Your task to perform on an android device: choose inbox layout in the gmail app Image 0: 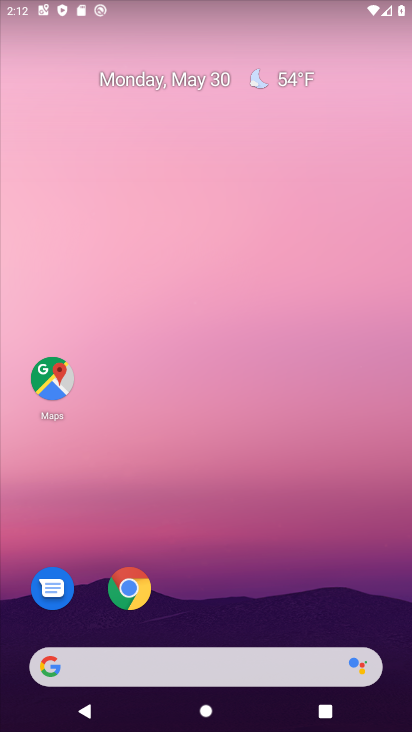
Step 0: drag from (198, 595) to (166, 110)
Your task to perform on an android device: choose inbox layout in the gmail app Image 1: 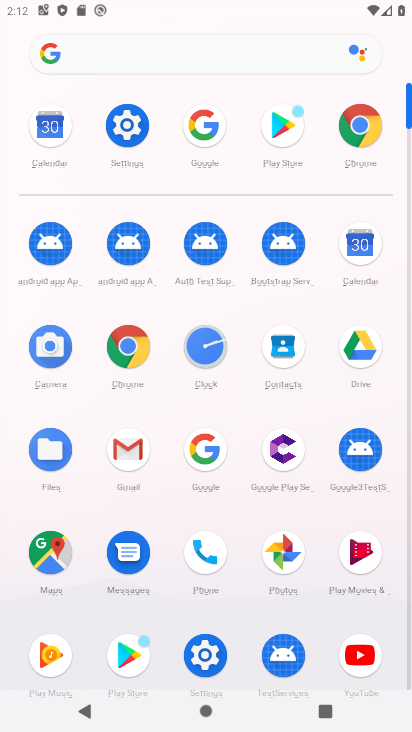
Step 1: click (133, 453)
Your task to perform on an android device: choose inbox layout in the gmail app Image 2: 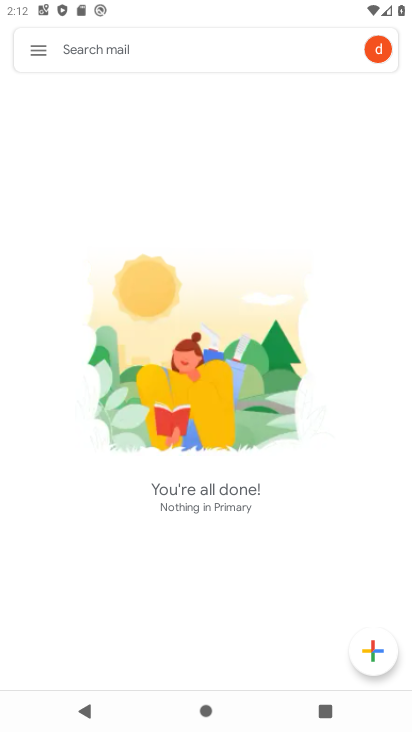
Step 2: click (38, 52)
Your task to perform on an android device: choose inbox layout in the gmail app Image 3: 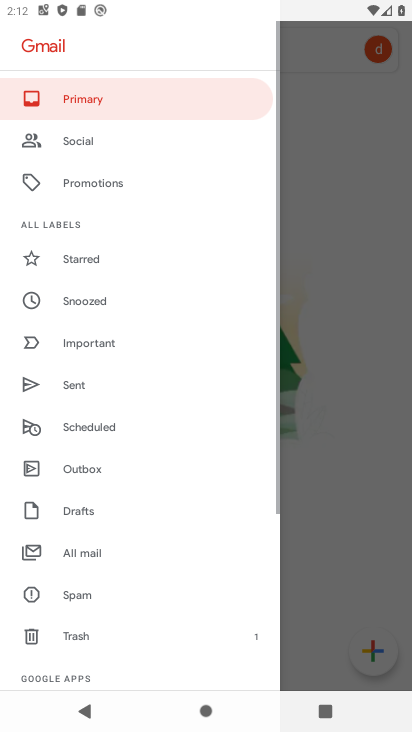
Step 3: drag from (137, 659) to (162, 254)
Your task to perform on an android device: choose inbox layout in the gmail app Image 4: 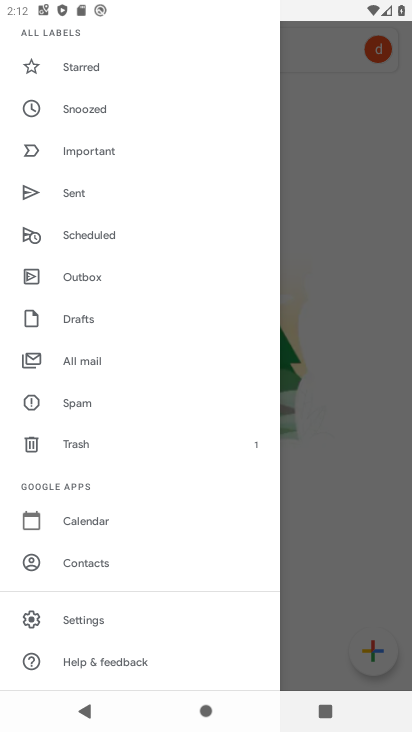
Step 4: click (91, 627)
Your task to perform on an android device: choose inbox layout in the gmail app Image 5: 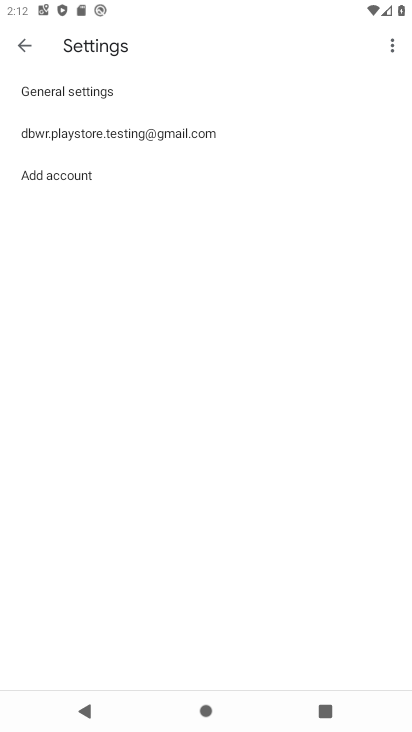
Step 5: click (123, 132)
Your task to perform on an android device: choose inbox layout in the gmail app Image 6: 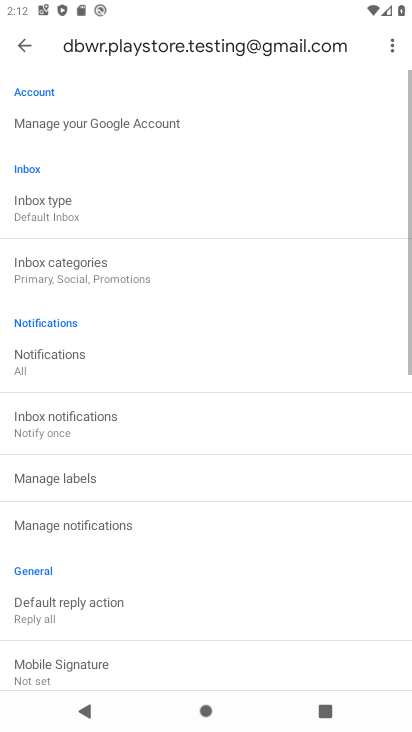
Step 6: click (76, 219)
Your task to perform on an android device: choose inbox layout in the gmail app Image 7: 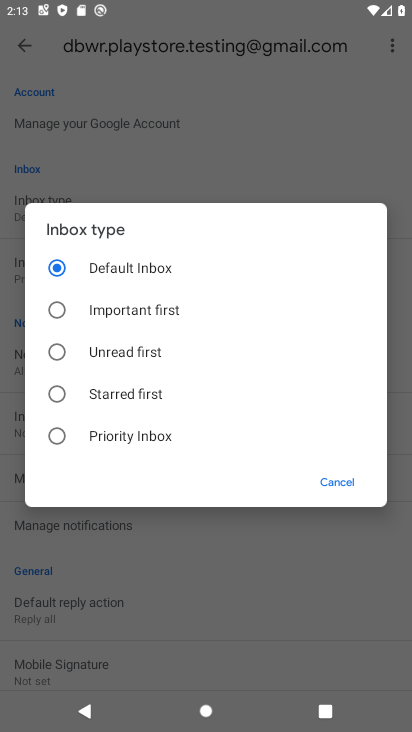
Step 7: click (57, 304)
Your task to perform on an android device: choose inbox layout in the gmail app Image 8: 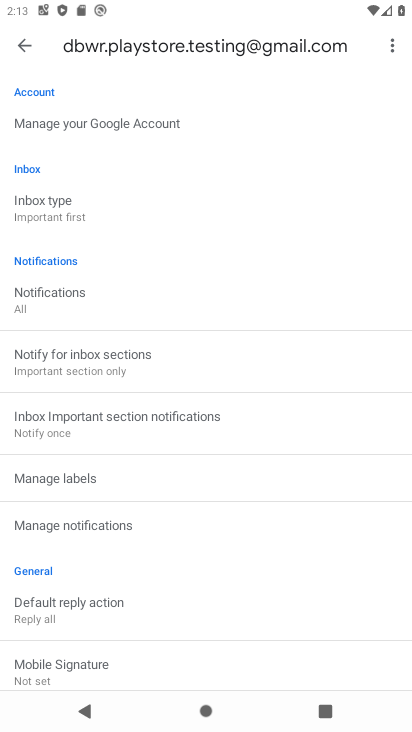
Step 8: task complete